Your task to perform on an android device: Go to ESPN.com Image 0: 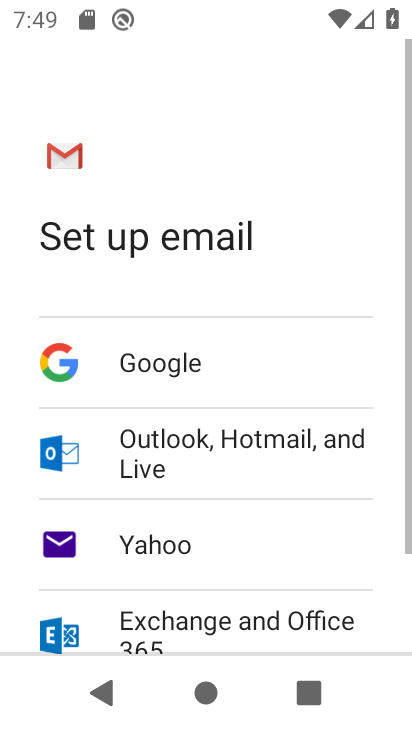
Step 0: press home button
Your task to perform on an android device: Go to ESPN.com Image 1: 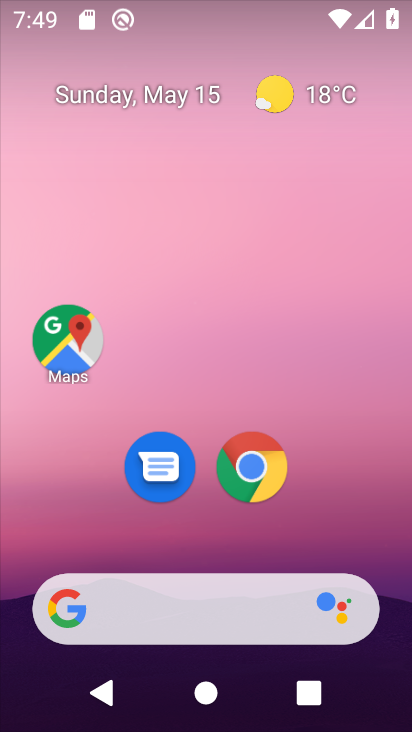
Step 1: click (250, 465)
Your task to perform on an android device: Go to ESPN.com Image 2: 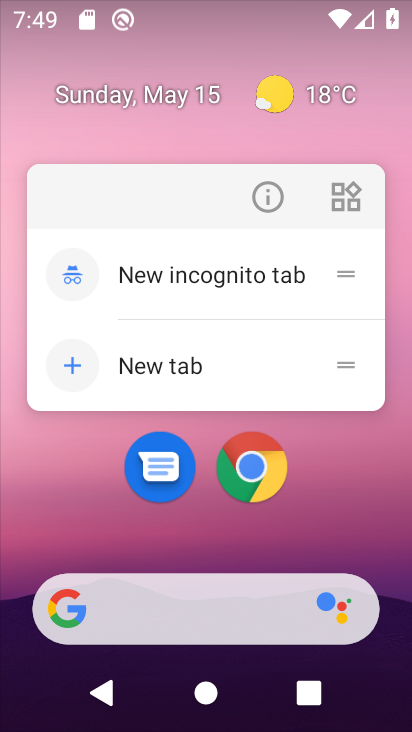
Step 2: click (250, 465)
Your task to perform on an android device: Go to ESPN.com Image 3: 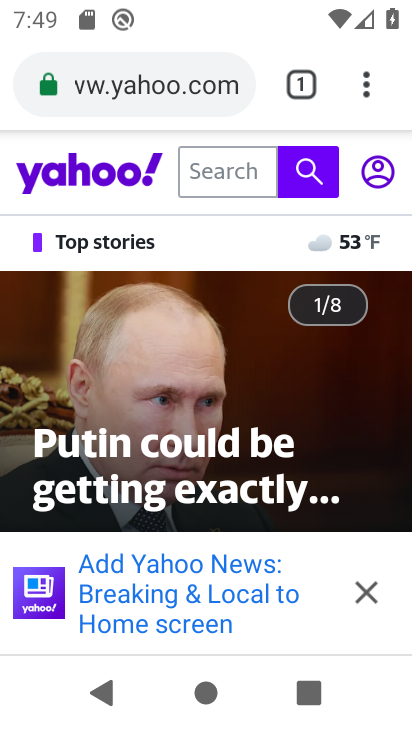
Step 3: click (113, 85)
Your task to perform on an android device: Go to ESPN.com Image 4: 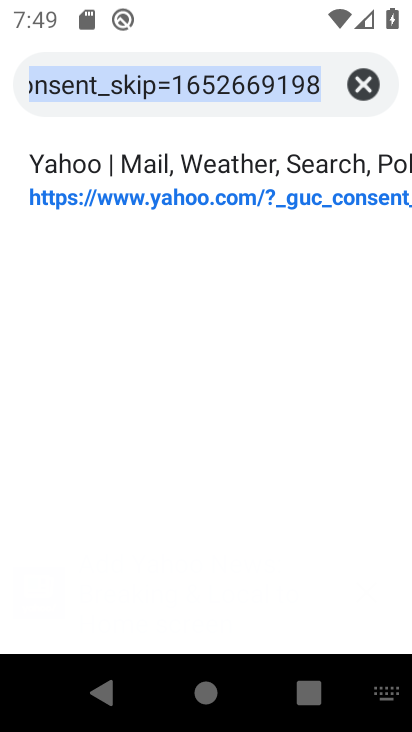
Step 4: type "ESPN.com"
Your task to perform on an android device: Go to ESPN.com Image 5: 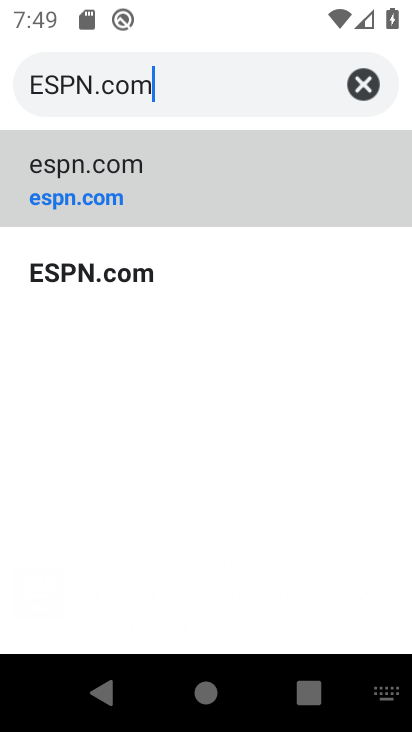
Step 5: click (86, 186)
Your task to perform on an android device: Go to ESPN.com Image 6: 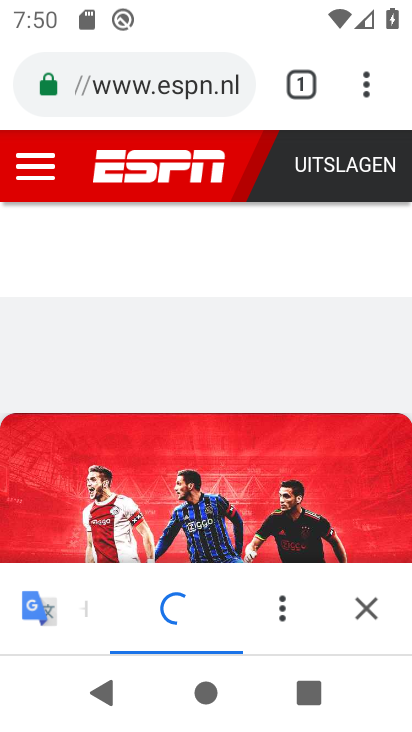
Step 6: task complete